Your task to perform on an android device: Go to CNN.com Image 0: 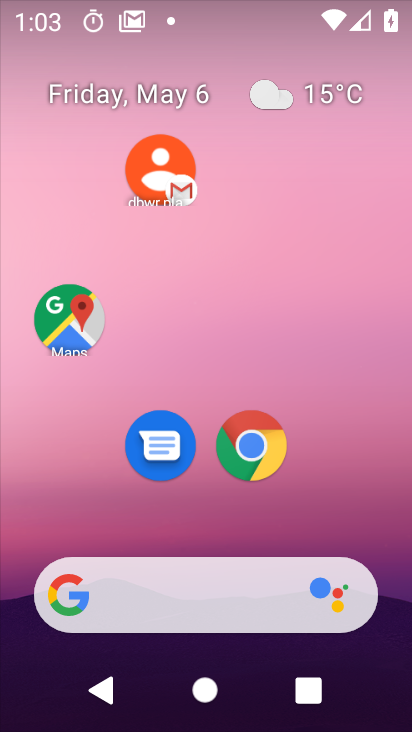
Step 0: drag from (310, 564) to (259, 308)
Your task to perform on an android device: Go to CNN.com Image 1: 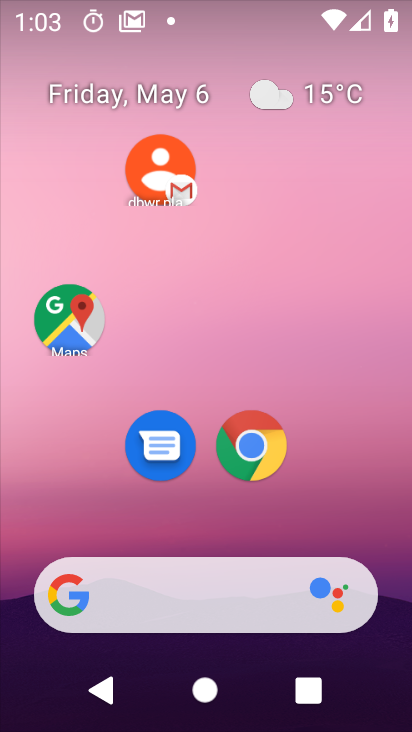
Step 1: drag from (341, 503) to (186, 117)
Your task to perform on an android device: Go to CNN.com Image 2: 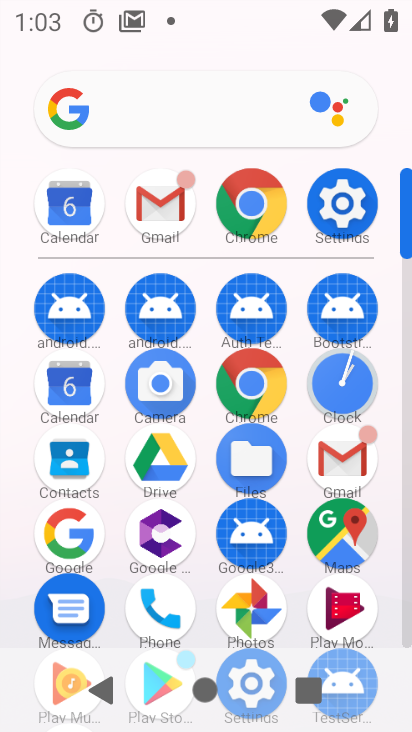
Step 2: click (243, 209)
Your task to perform on an android device: Go to CNN.com Image 3: 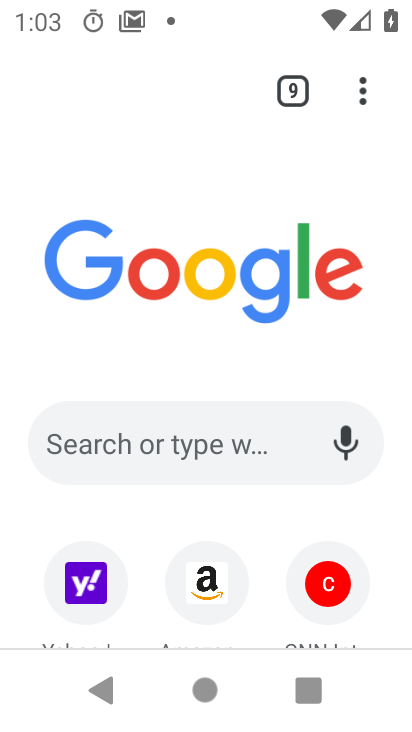
Step 3: drag from (282, 584) to (216, 146)
Your task to perform on an android device: Go to CNN.com Image 4: 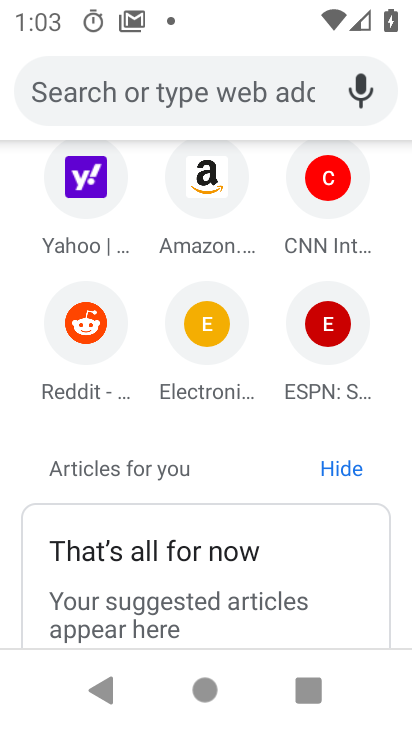
Step 4: click (313, 178)
Your task to perform on an android device: Go to CNN.com Image 5: 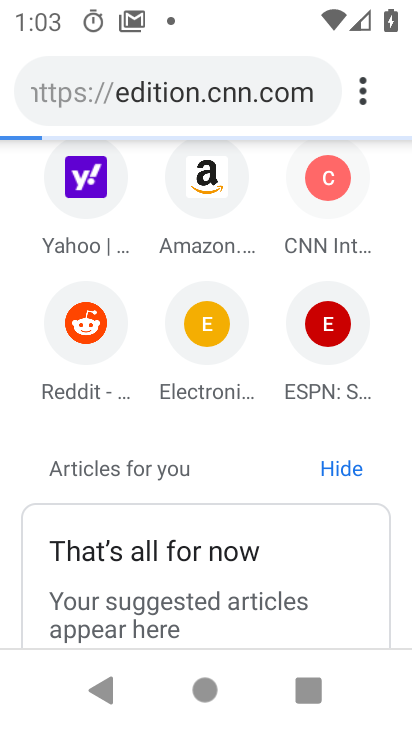
Step 5: click (315, 177)
Your task to perform on an android device: Go to CNN.com Image 6: 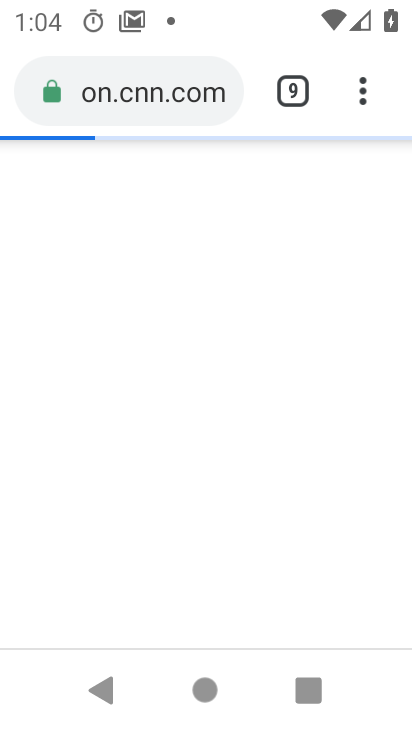
Step 6: click (313, 180)
Your task to perform on an android device: Go to CNN.com Image 7: 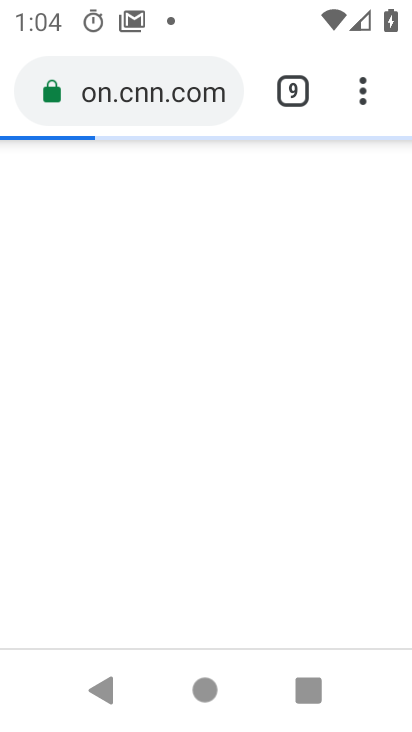
Step 7: click (313, 180)
Your task to perform on an android device: Go to CNN.com Image 8: 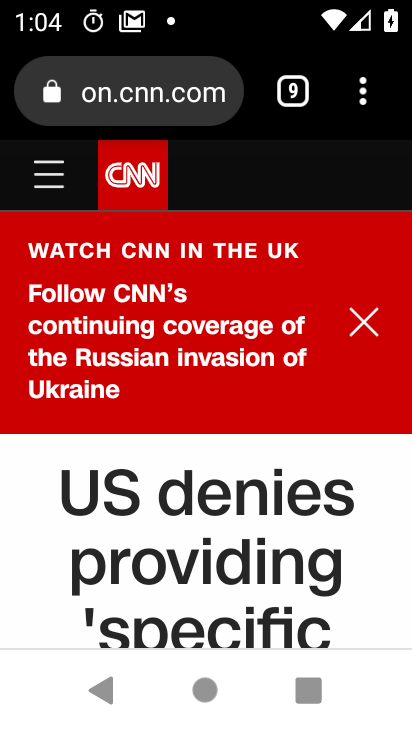
Step 8: task complete